Your task to perform on an android device: toggle javascript in the chrome app Image 0: 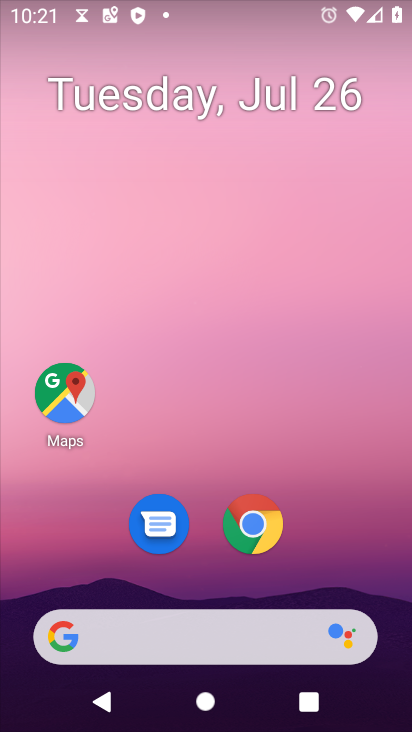
Step 0: press home button
Your task to perform on an android device: toggle javascript in the chrome app Image 1: 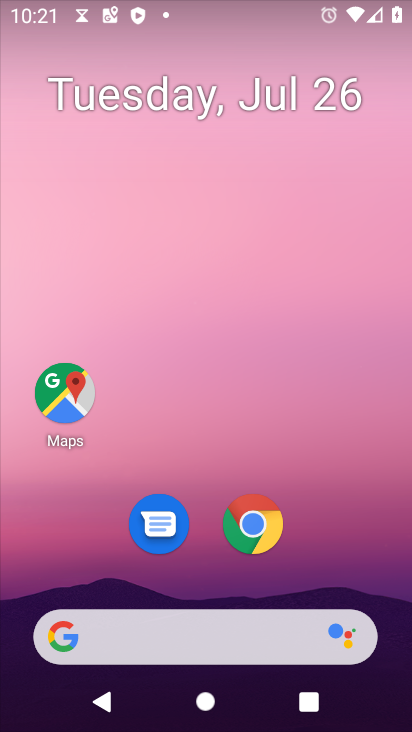
Step 1: click (250, 528)
Your task to perform on an android device: toggle javascript in the chrome app Image 2: 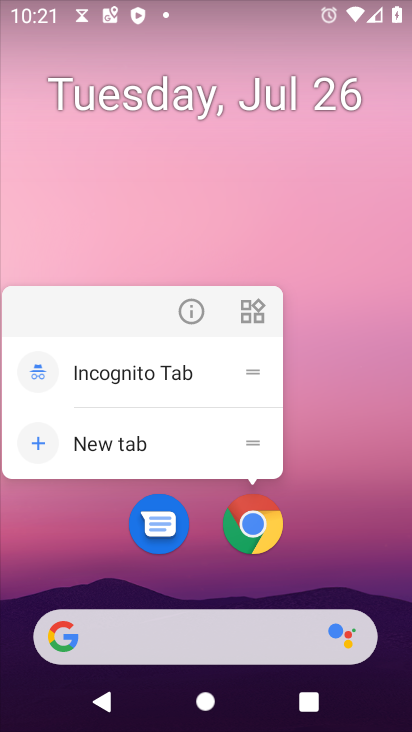
Step 2: click (259, 524)
Your task to perform on an android device: toggle javascript in the chrome app Image 3: 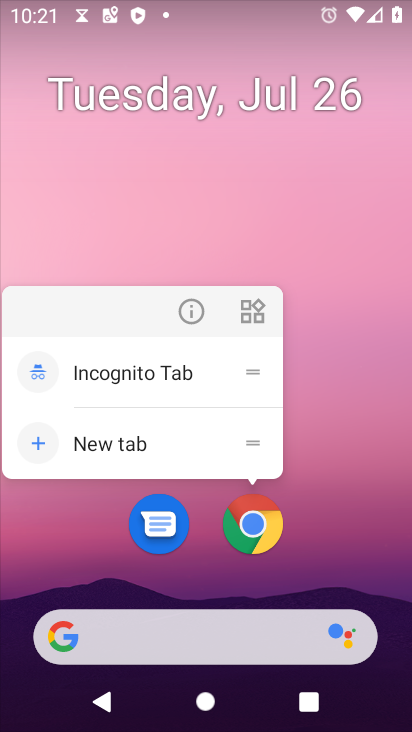
Step 3: click (248, 526)
Your task to perform on an android device: toggle javascript in the chrome app Image 4: 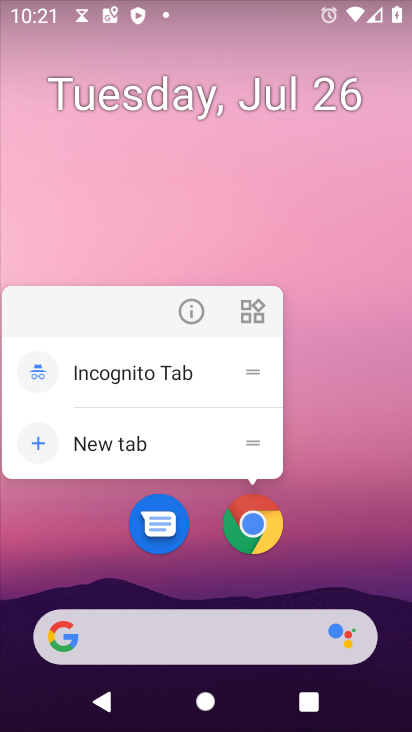
Step 4: click (248, 525)
Your task to perform on an android device: toggle javascript in the chrome app Image 5: 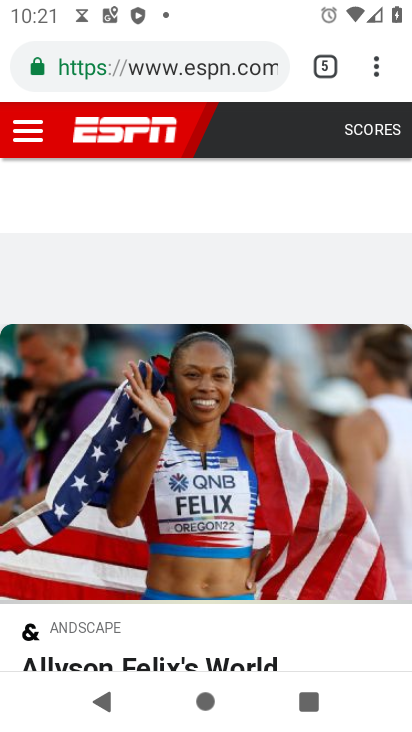
Step 5: drag from (374, 68) to (211, 517)
Your task to perform on an android device: toggle javascript in the chrome app Image 6: 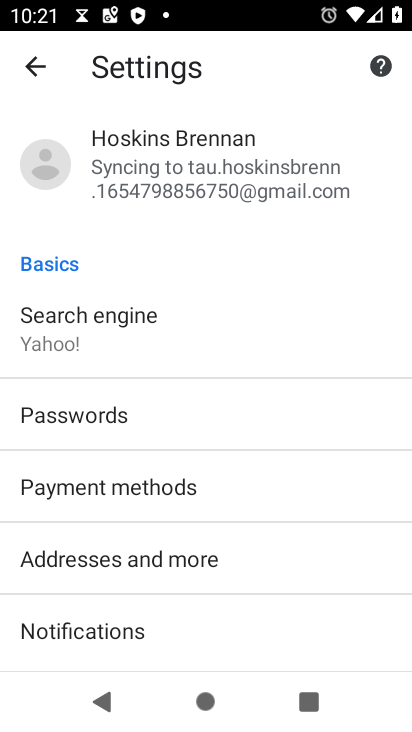
Step 6: drag from (159, 623) to (329, 149)
Your task to perform on an android device: toggle javascript in the chrome app Image 7: 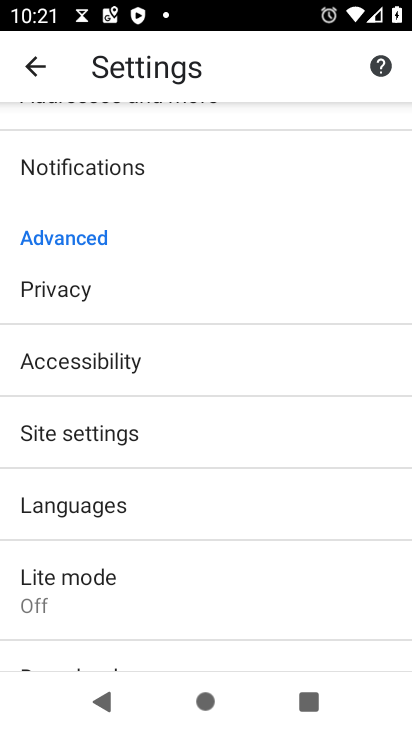
Step 7: click (121, 430)
Your task to perform on an android device: toggle javascript in the chrome app Image 8: 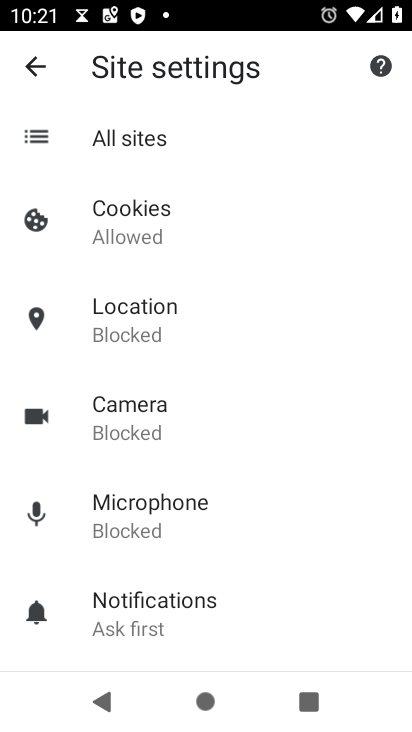
Step 8: drag from (233, 566) to (333, 116)
Your task to perform on an android device: toggle javascript in the chrome app Image 9: 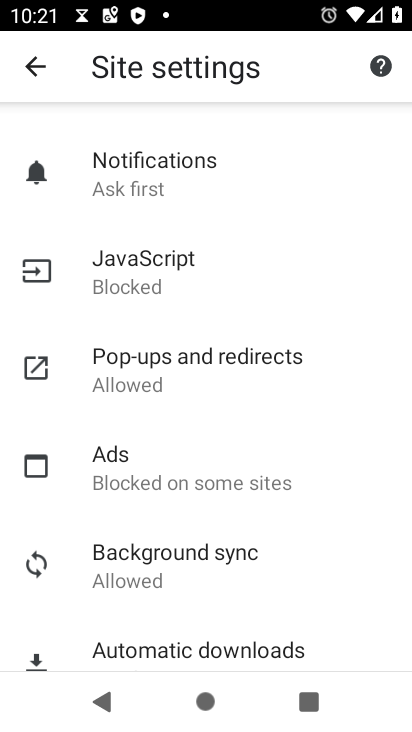
Step 9: click (181, 260)
Your task to perform on an android device: toggle javascript in the chrome app Image 10: 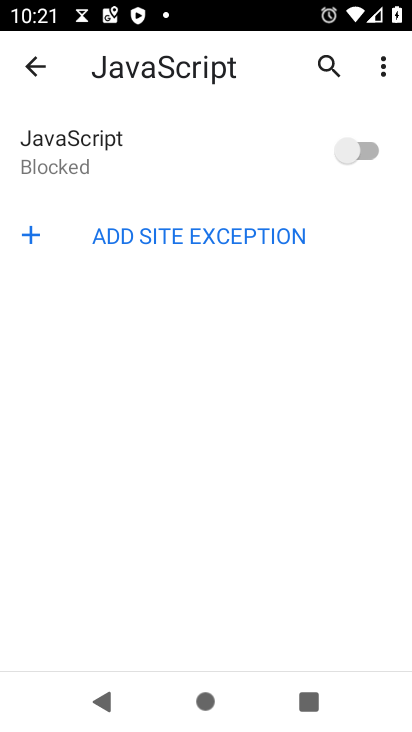
Step 10: click (372, 145)
Your task to perform on an android device: toggle javascript in the chrome app Image 11: 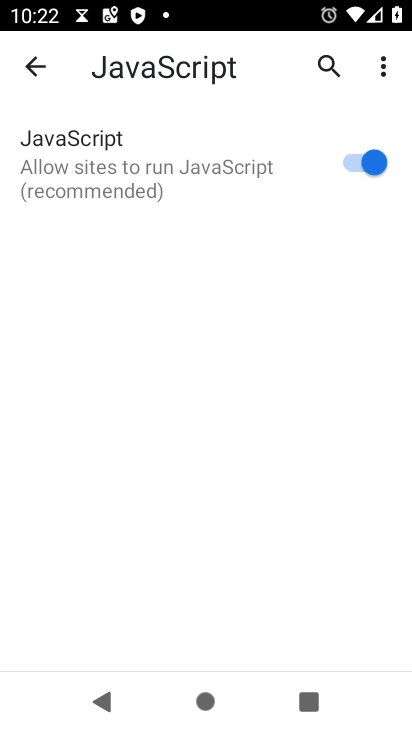
Step 11: task complete